Your task to perform on an android device: Go to sound settings Image 0: 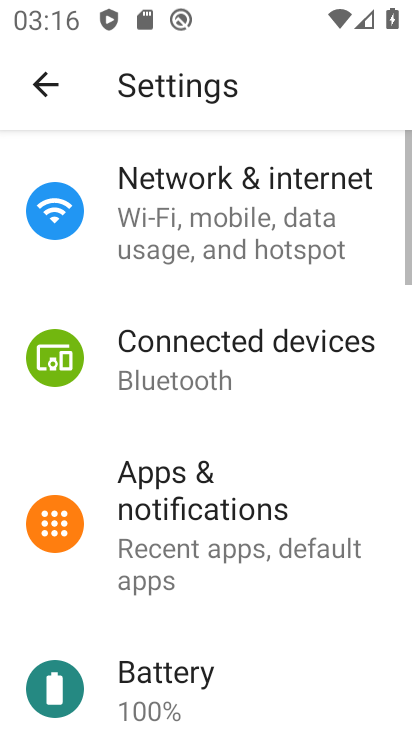
Step 0: drag from (224, 641) to (290, 104)
Your task to perform on an android device: Go to sound settings Image 1: 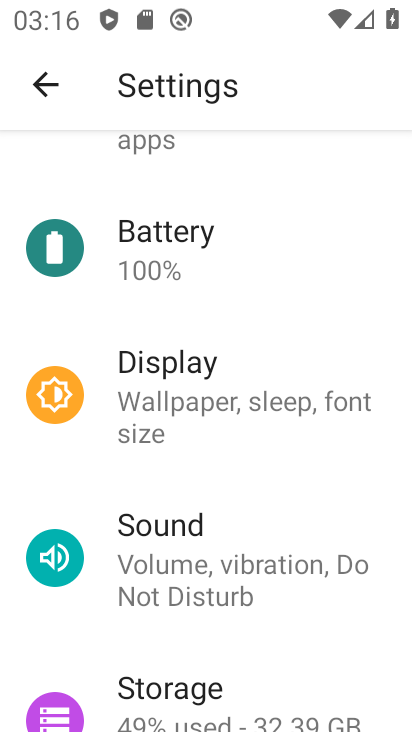
Step 1: click (176, 546)
Your task to perform on an android device: Go to sound settings Image 2: 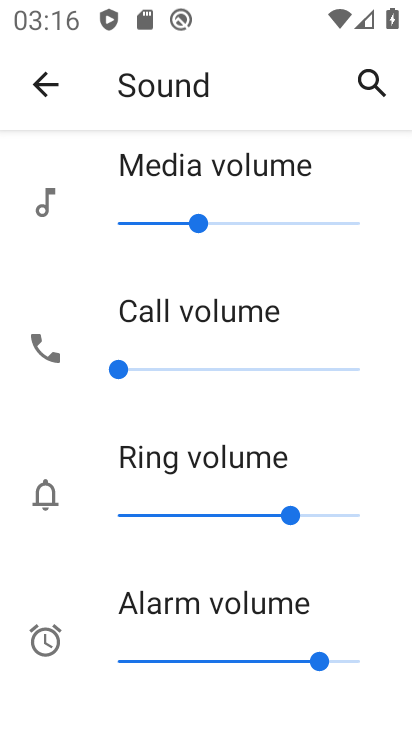
Step 2: task complete